Your task to perform on an android device: turn off notifications in google photos Image 0: 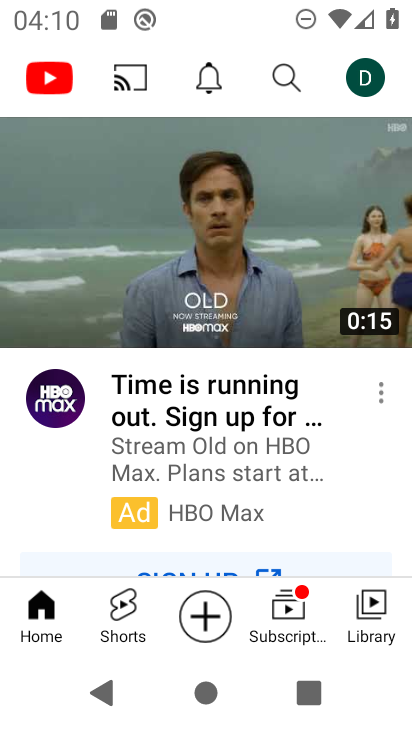
Step 0: press home button
Your task to perform on an android device: turn off notifications in google photos Image 1: 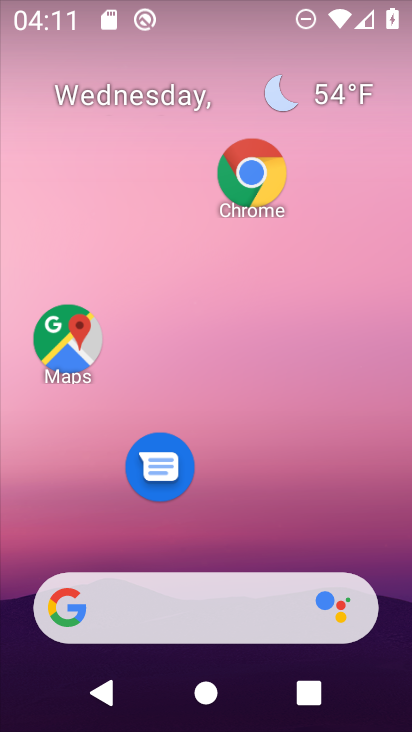
Step 1: drag from (255, 525) to (263, 103)
Your task to perform on an android device: turn off notifications in google photos Image 2: 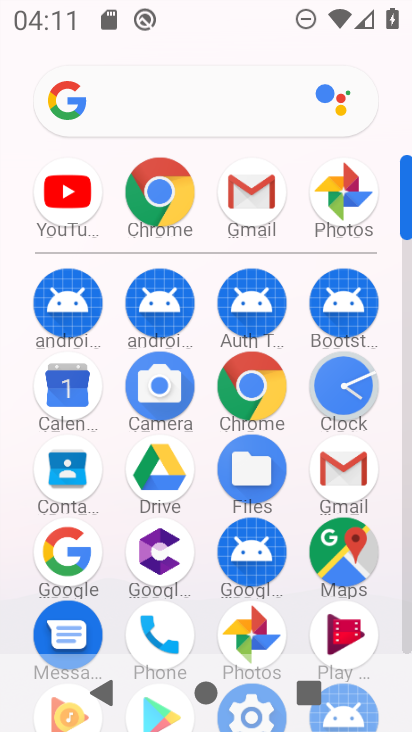
Step 2: click (253, 623)
Your task to perform on an android device: turn off notifications in google photos Image 3: 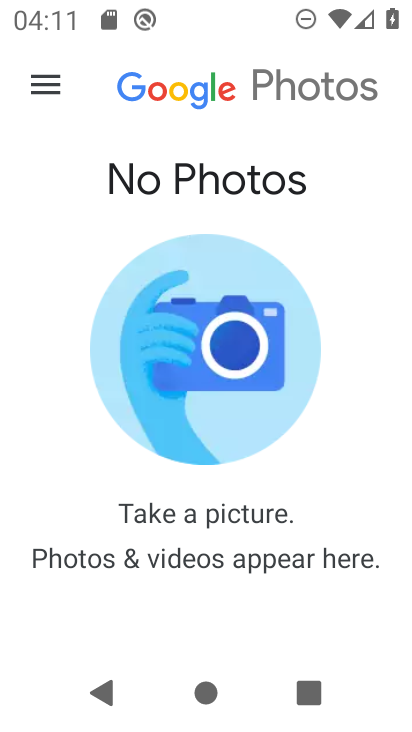
Step 3: click (43, 71)
Your task to perform on an android device: turn off notifications in google photos Image 4: 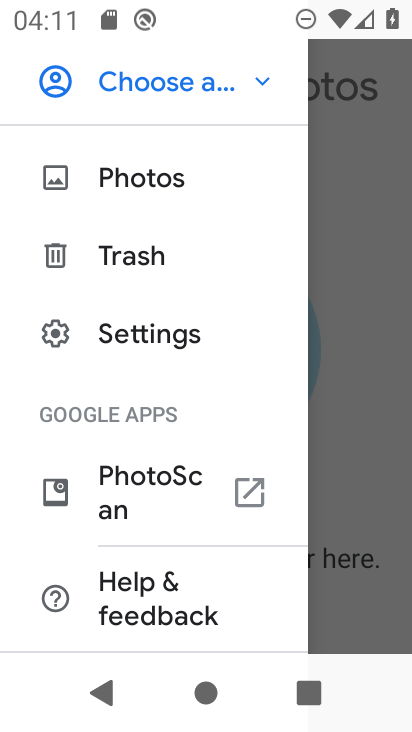
Step 4: click (135, 326)
Your task to perform on an android device: turn off notifications in google photos Image 5: 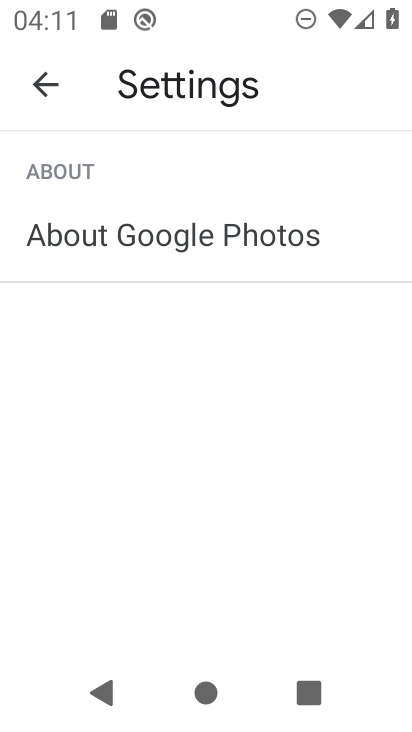
Step 5: click (44, 66)
Your task to perform on an android device: turn off notifications in google photos Image 6: 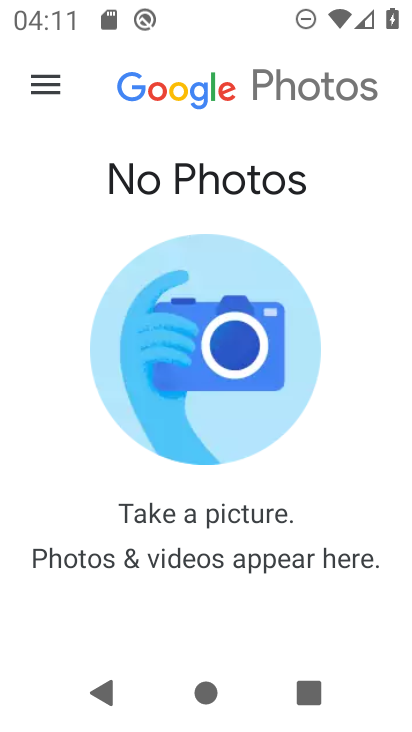
Step 6: click (48, 72)
Your task to perform on an android device: turn off notifications in google photos Image 7: 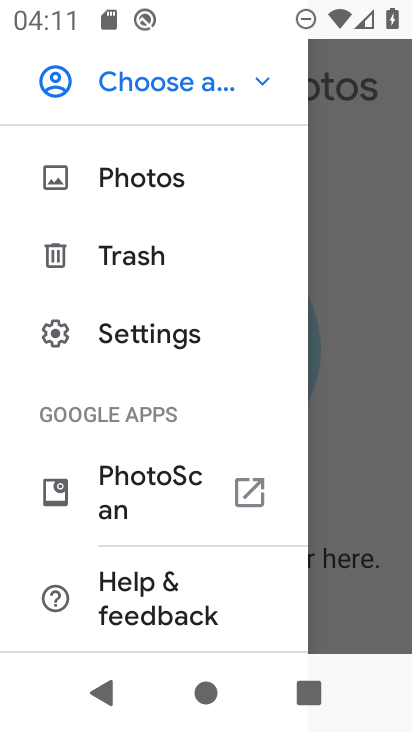
Step 7: press back button
Your task to perform on an android device: turn off notifications in google photos Image 8: 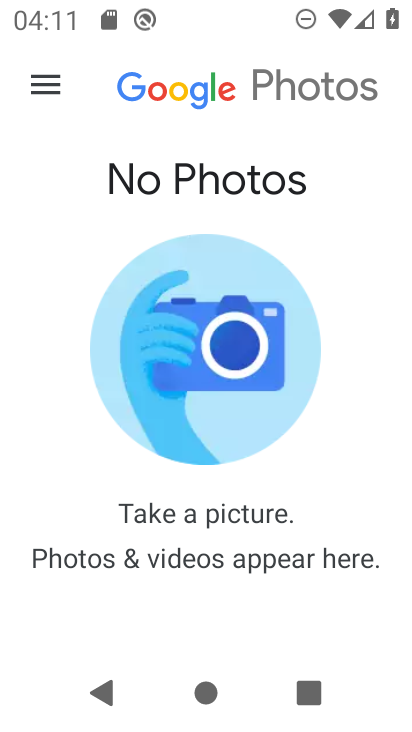
Step 8: press back button
Your task to perform on an android device: turn off notifications in google photos Image 9: 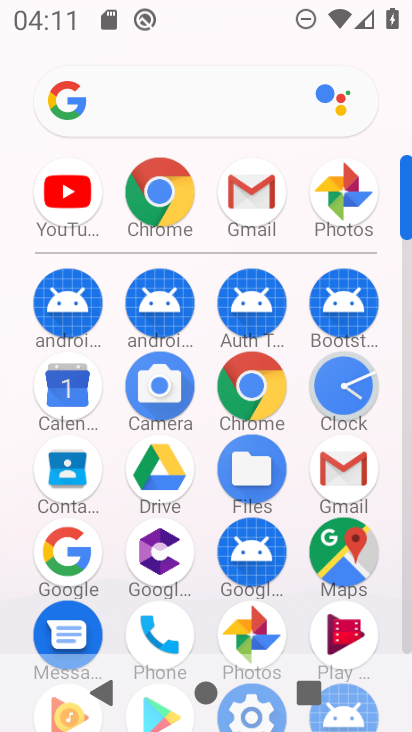
Step 9: click (342, 184)
Your task to perform on an android device: turn off notifications in google photos Image 10: 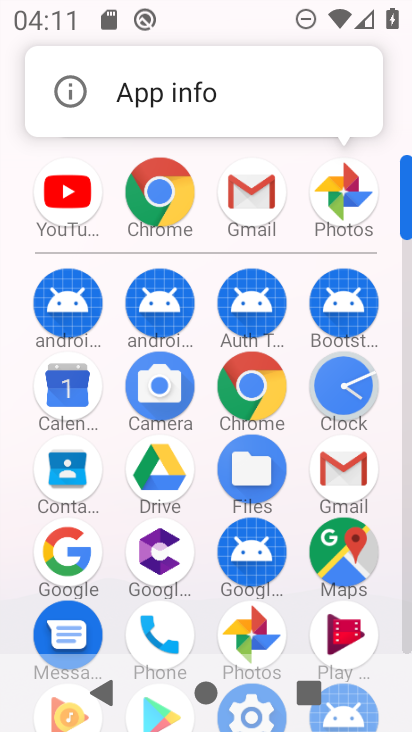
Step 10: click (143, 92)
Your task to perform on an android device: turn off notifications in google photos Image 11: 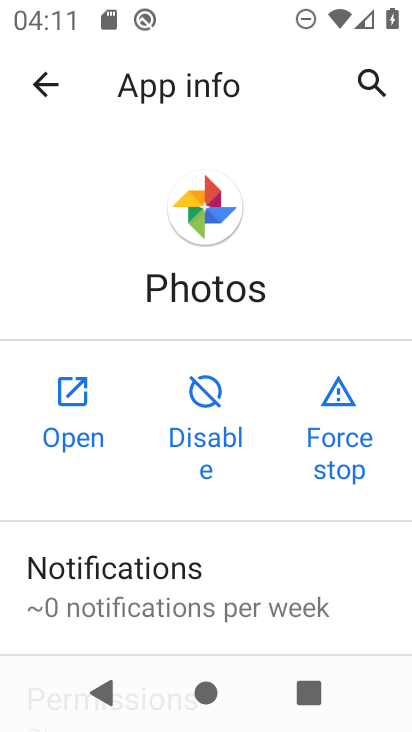
Step 11: click (166, 558)
Your task to perform on an android device: turn off notifications in google photos Image 12: 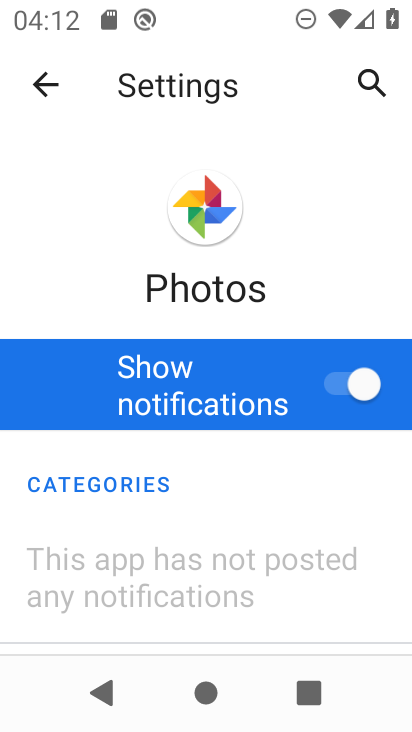
Step 12: click (351, 383)
Your task to perform on an android device: turn off notifications in google photos Image 13: 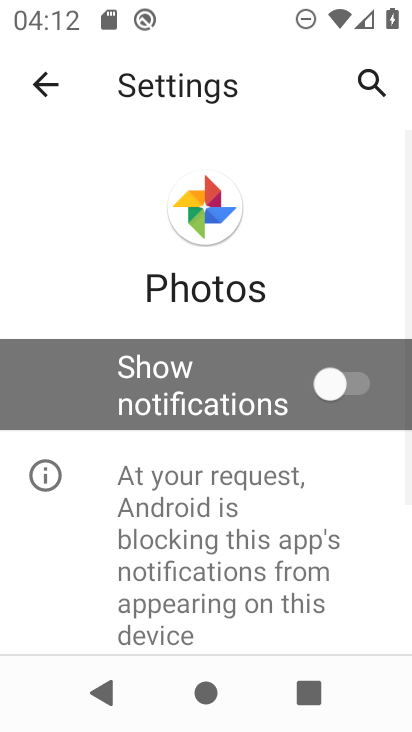
Step 13: task complete